Your task to perform on an android device: check battery use Image 0: 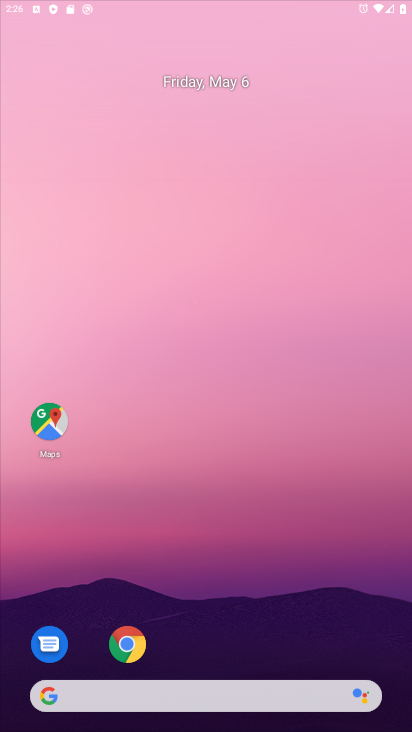
Step 0: click (176, 191)
Your task to perform on an android device: check battery use Image 1: 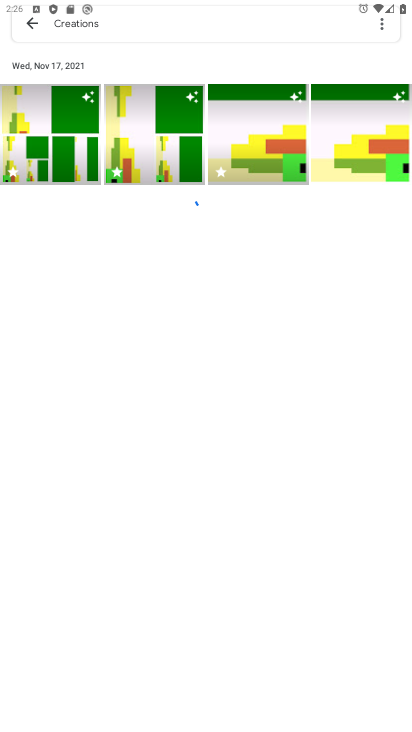
Step 1: press home button
Your task to perform on an android device: check battery use Image 2: 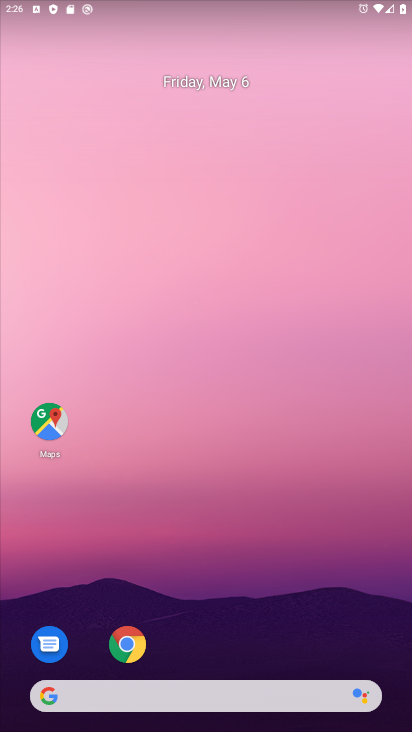
Step 2: drag from (230, 696) to (224, 141)
Your task to perform on an android device: check battery use Image 3: 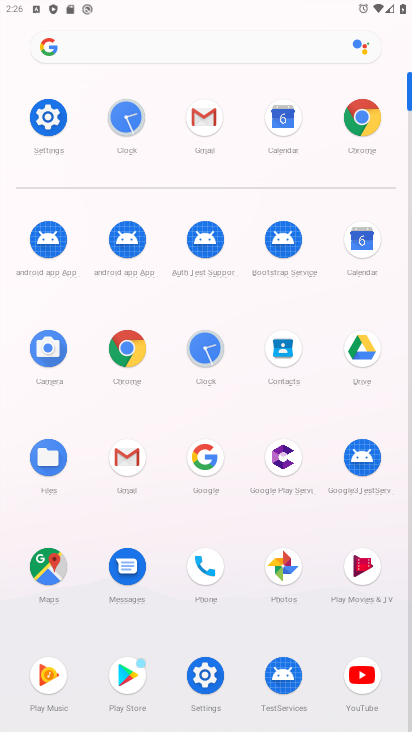
Step 3: click (56, 125)
Your task to perform on an android device: check battery use Image 4: 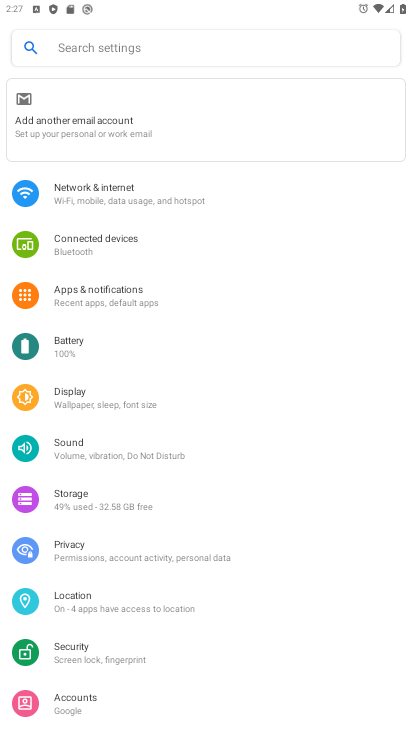
Step 4: click (142, 350)
Your task to perform on an android device: check battery use Image 5: 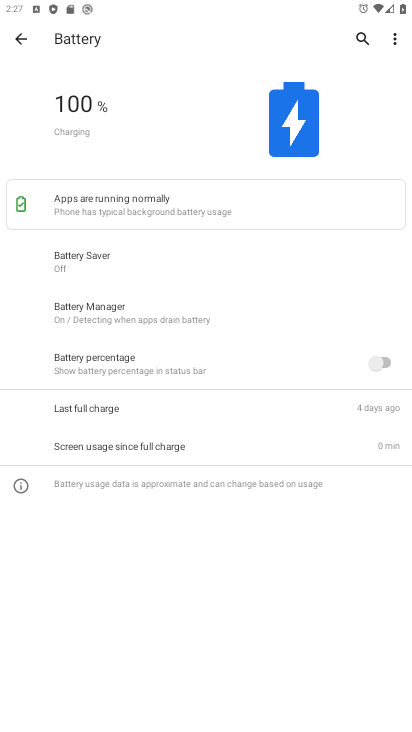
Step 5: click (394, 43)
Your task to perform on an android device: check battery use Image 6: 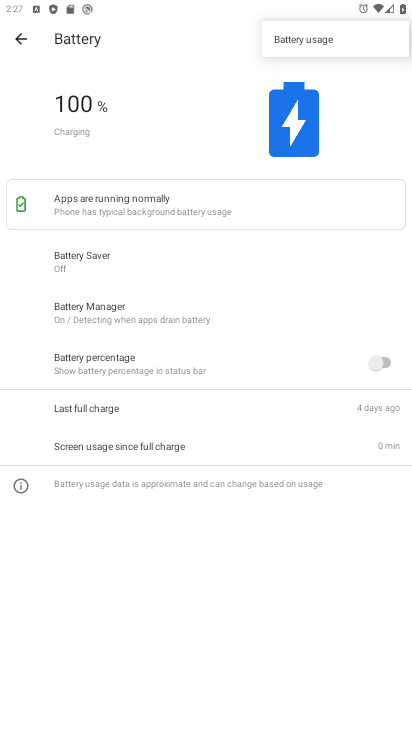
Step 6: click (342, 38)
Your task to perform on an android device: check battery use Image 7: 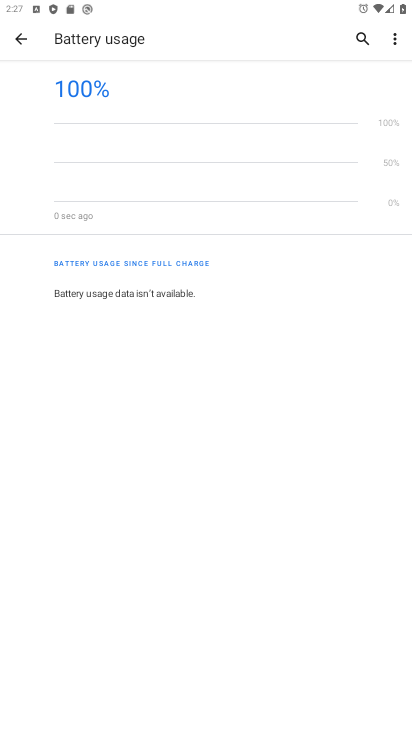
Step 7: task complete